Your task to perform on an android device: Show me recent news Image 0: 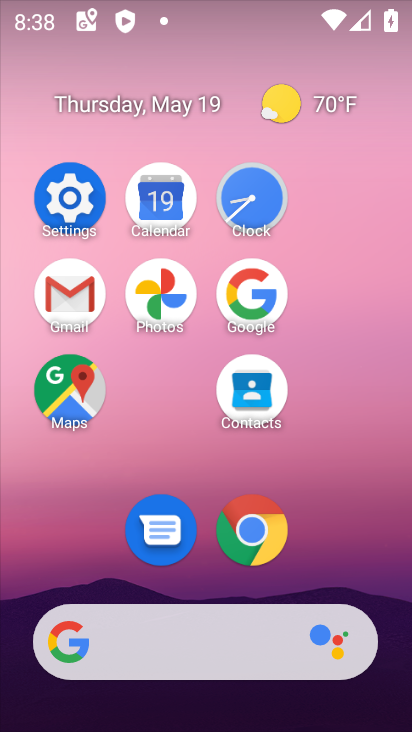
Step 0: click (265, 300)
Your task to perform on an android device: Show me recent news Image 1: 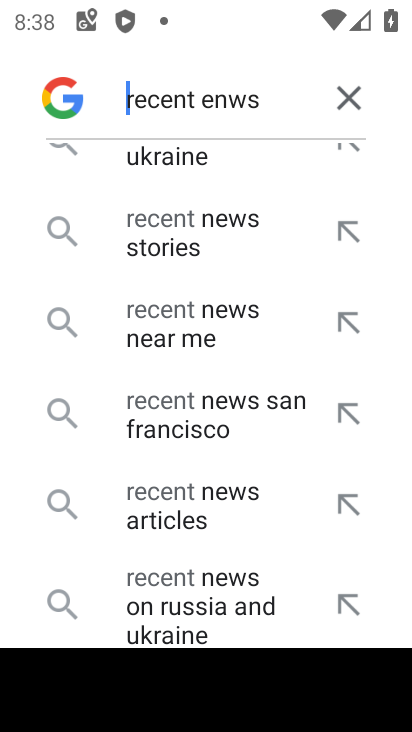
Step 1: click (267, 104)
Your task to perform on an android device: Show me recent news Image 2: 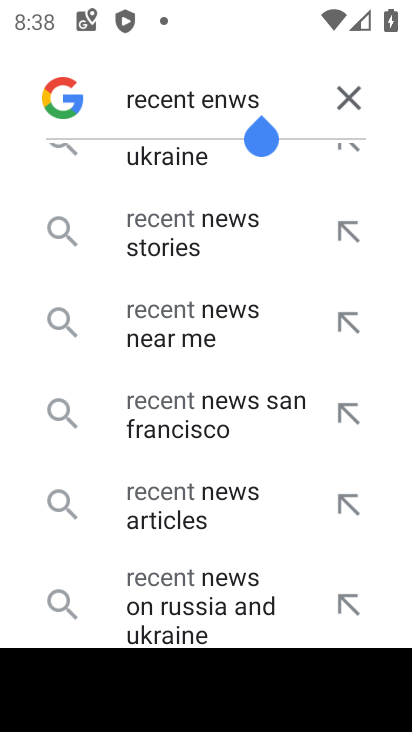
Step 2: click (352, 90)
Your task to perform on an android device: Show me recent news Image 3: 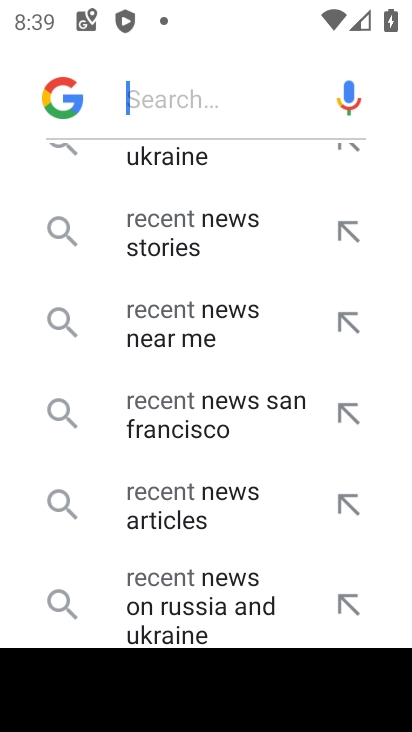
Step 3: type "recent news"
Your task to perform on an android device: Show me recent news Image 4: 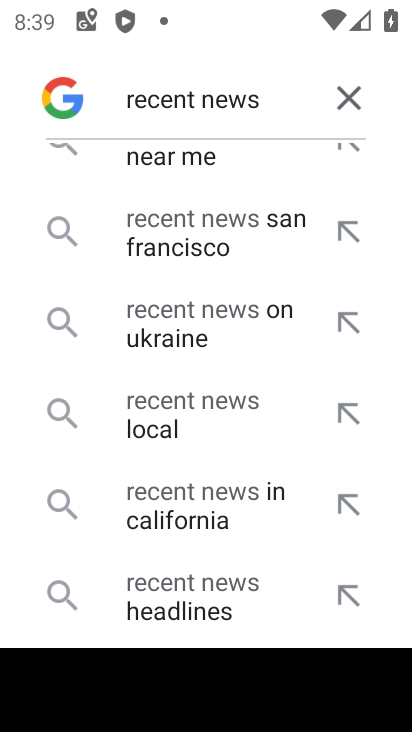
Step 4: drag from (245, 164) to (268, 634)
Your task to perform on an android device: Show me recent news Image 5: 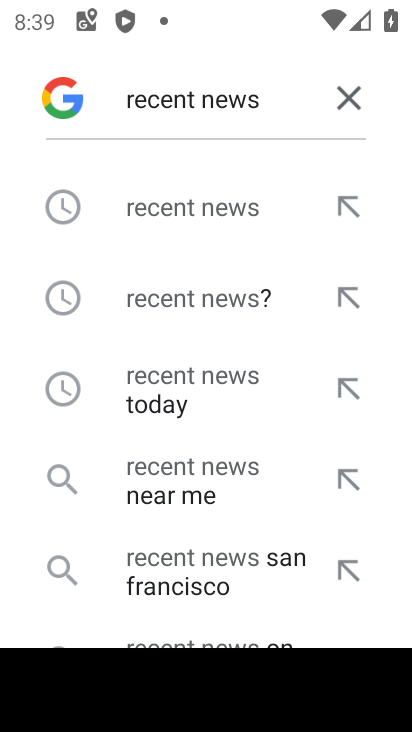
Step 5: click (195, 192)
Your task to perform on an android device: Show me recent news Image 6: 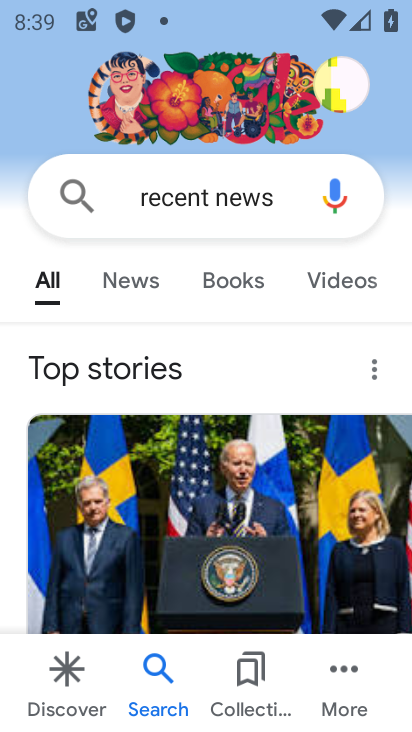
Step 6: task complete